Your task to perform on an android device: What is the recent news? Image 0: 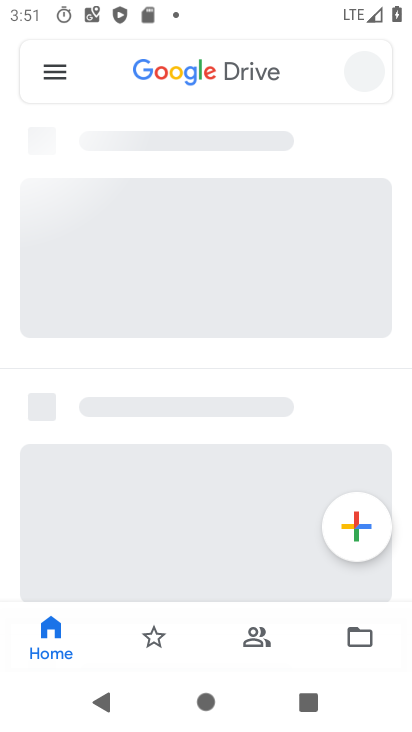
Step 0: drag from (329, 566) to (313, 94)
Your task to perform on an android device: What is the recent news? Image 1: 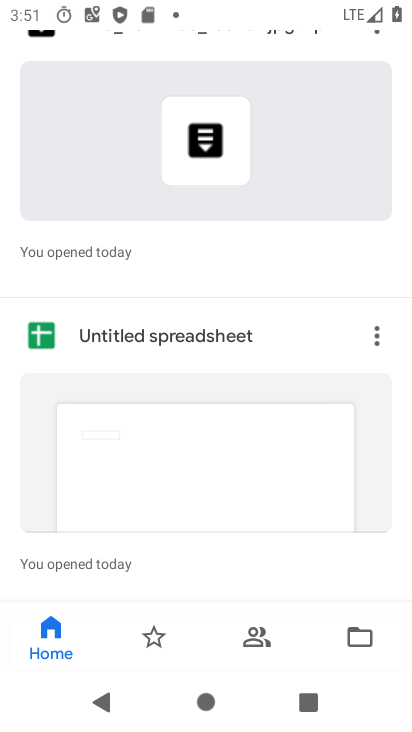
Step 1: press home button
Your task to perform on an android device: What is the recent news? Image 2: 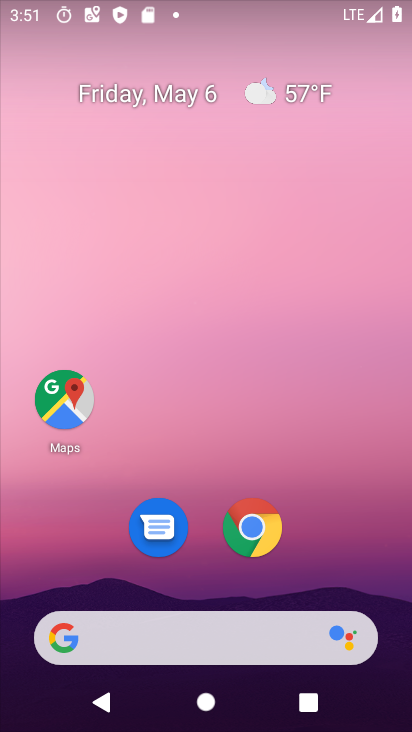
Step 2: drag from (291, 535) to (295, 71)
Your task to perform on an android device: What is the recent news? Image 3: 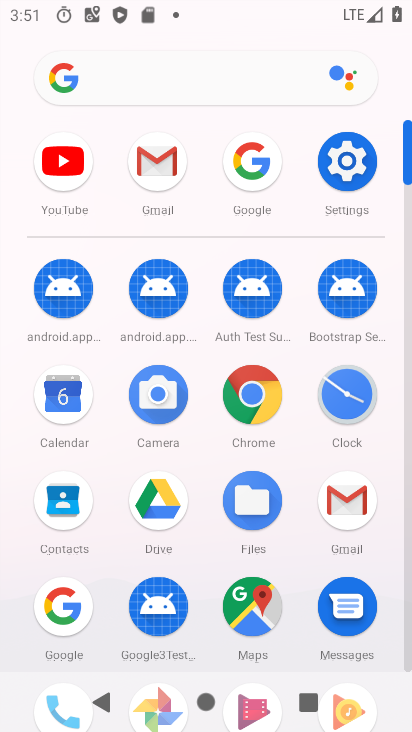
Step 3: click (90, 400)
Your task to perform on an android device: What is the recent news? Image 4: 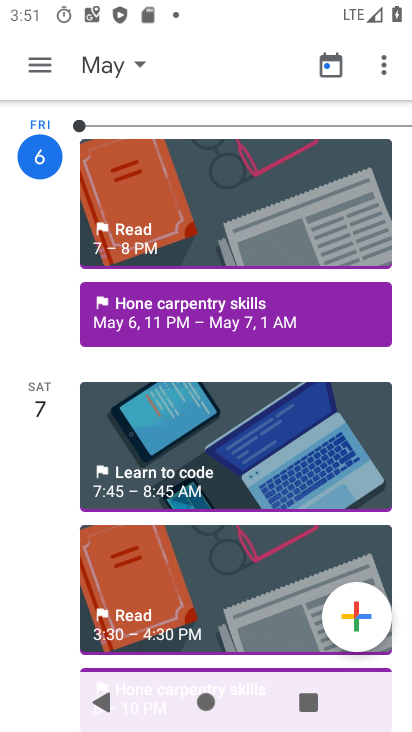
Step 4: task complete